Your task to perform on an android device: turn on the 24-hour format for clock Image 0: 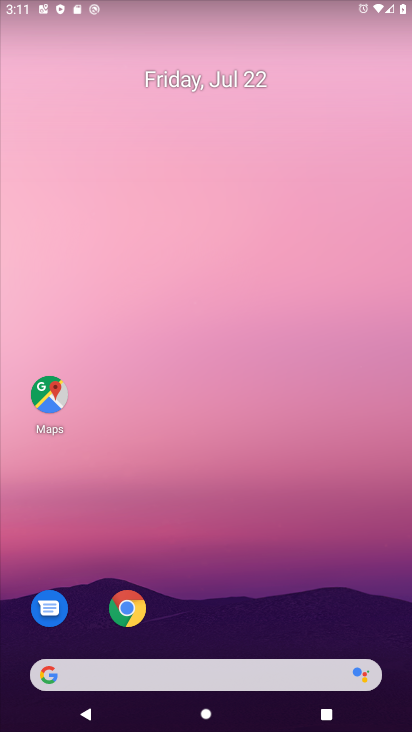
Step 0: click (261, 608)
Your task to perform on an android device: turn on the 24-hour format for clock Image 1: 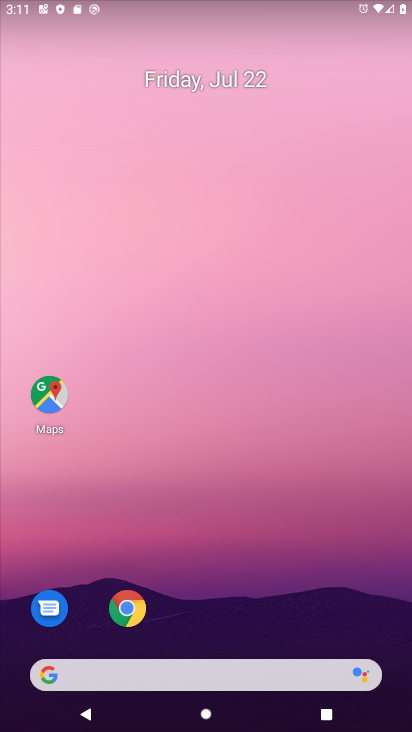
Step 1: drag from (261, 608) to (183, 203)
Your task to perform on an android device: turn on the 24-hour format for clock Image 2: 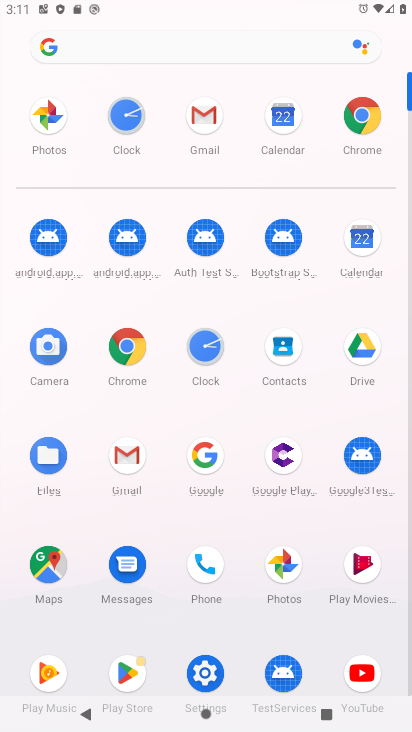
Step 2: click (191, 359)
Your task to perform on an android device: turn on the 24-hour format for clock Image 3: 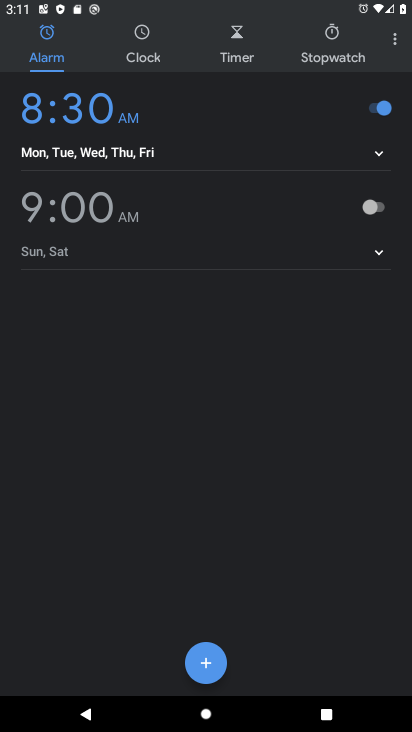
Step 3: click (399, 38)
Your task to perform on an android device: turn on the 24-hour format for clock Image 4: 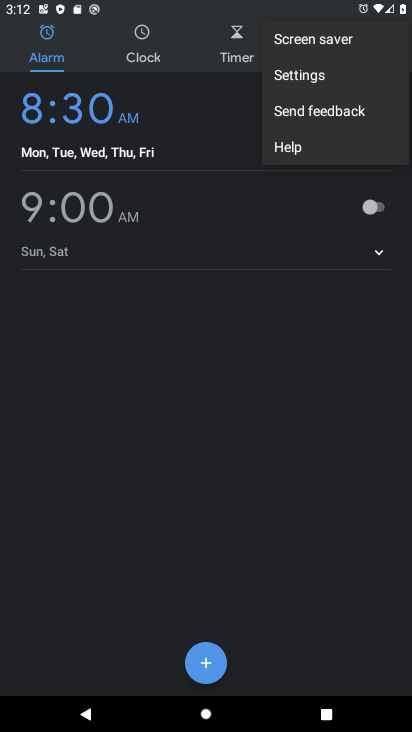
Step 4: click (310, 78)
Your task to perform on an android device: turn on the 24-hour format for clock Image 5: 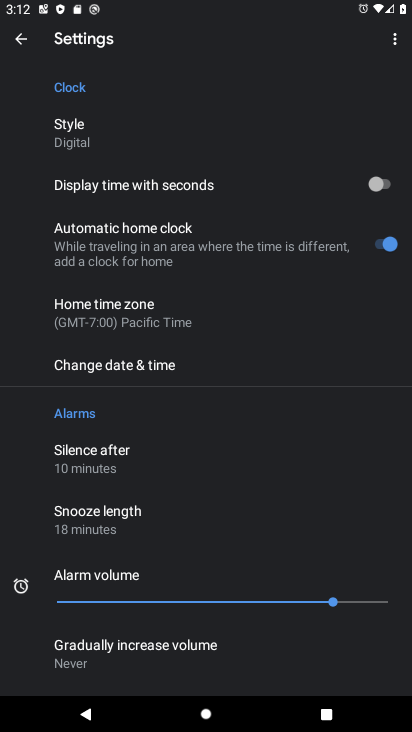
Step 5: drag from (309, 508) to (154, 56)
Your task to perform on an android device: turn on the 24-hour format for clock Image 6: 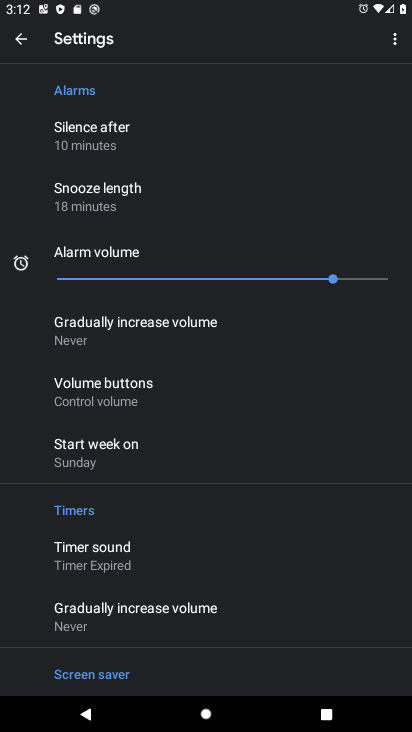
Step 6: drag from (243, 473) to (164, 240)
Your task to perform on an android device: turn on the 24-hour format for clock Image 7: 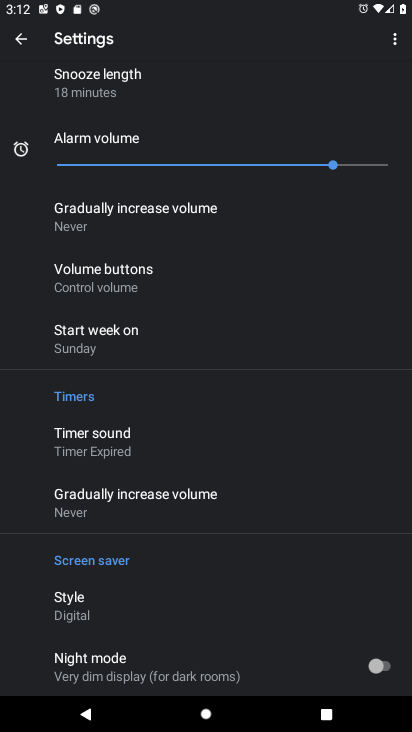
Step 7: drag from (173, 235) to (180, 636)
Your task to perform on an android device: turn on the 24-hour format for clock Image 8: 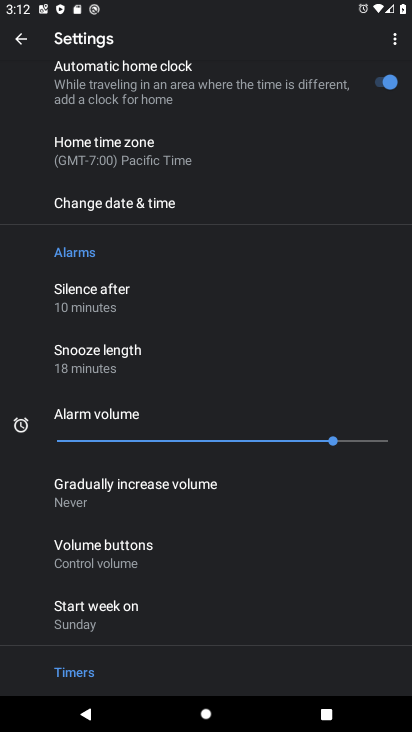
Step 8: click (148, 213)
Your task to perform on an android device: turn on the 24-hour format for clock Image 9: 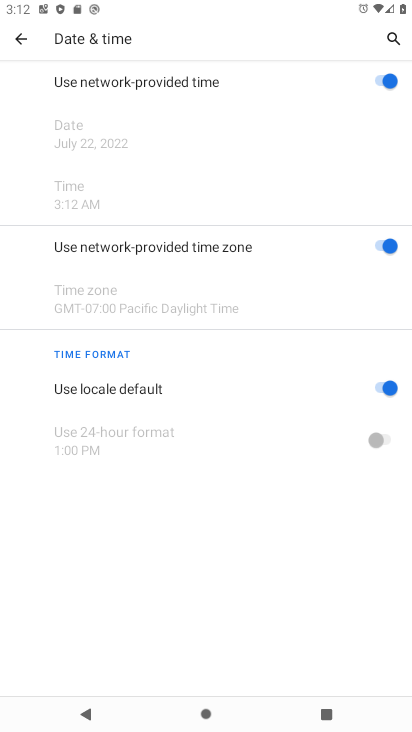
Step 9: click (380, 388)
Your task to perform on an android device: turn on the 24-hour format for clock Image 10: 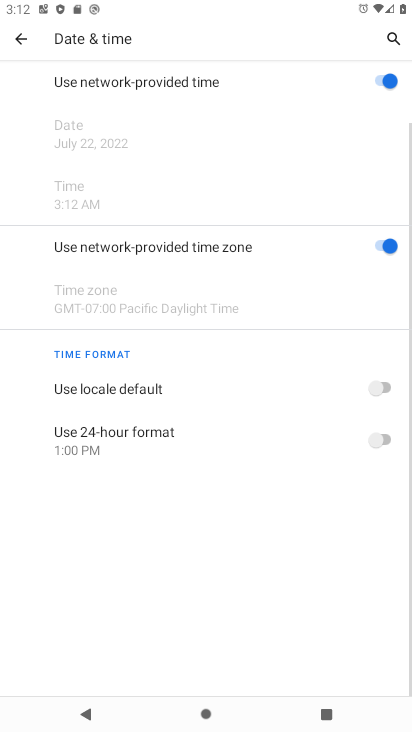
Step 10: click (383, 438)
Your task to perform on an android device: turn on the 24-hour format for clock Image 11: 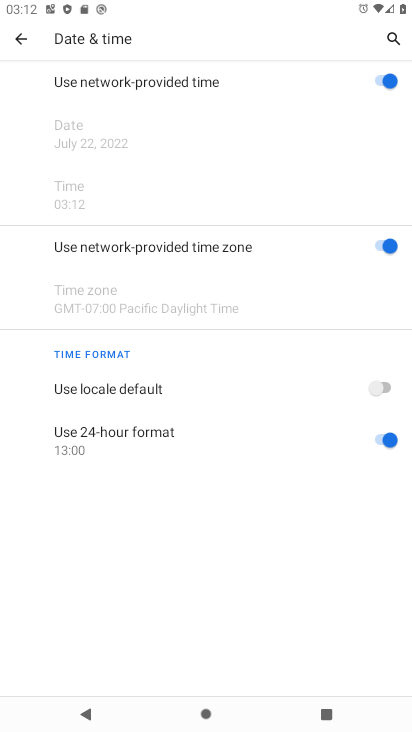
Step 11: task complete